Your task to perform on an android device: Check the news Image 0: 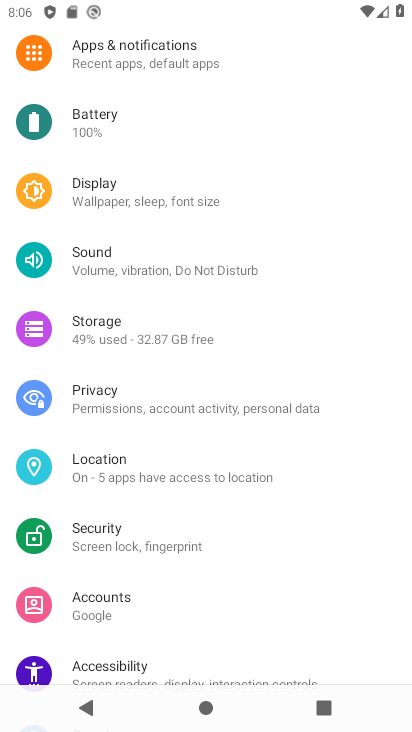
Step 0: press home button
Your task to perform on an android device: Check the news Image 1: 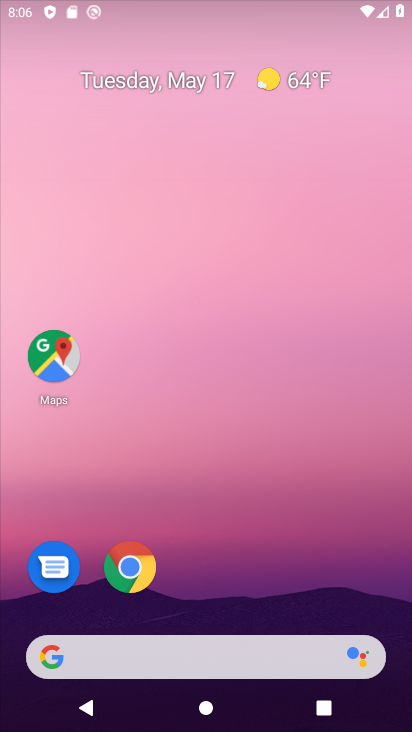
Step 1: drag from (356, 606) to (211, 14)
Your task to perform on an android device: Check the news Image 2: 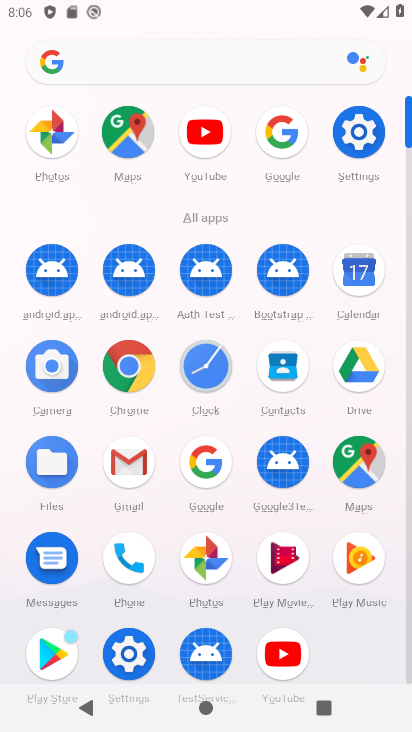
Step 2: click (278, 126)
Your task to perform on an android device: Check the news Image 3: 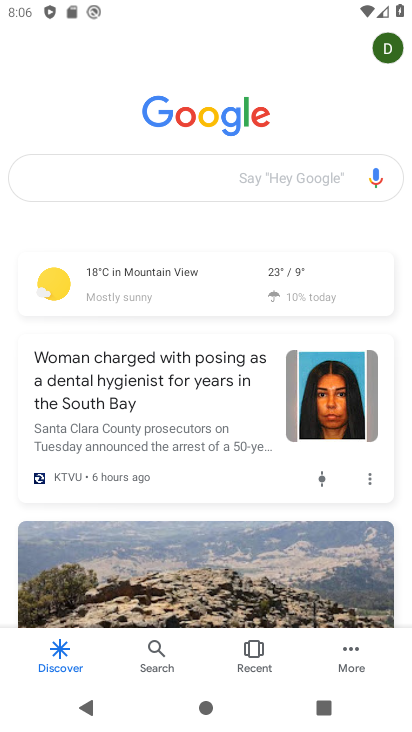
Step 3: click (158, 164)
Your task to perform on an android device: Check the news Image 4: 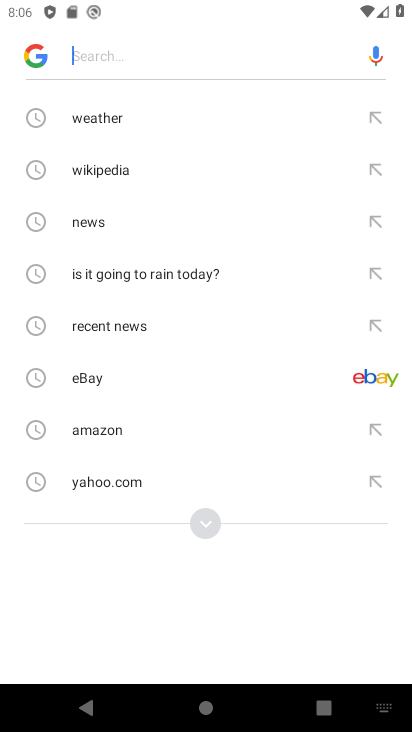
Step 4: click (111, 231)
Your task to perform on an android device: Check the news Image 5: 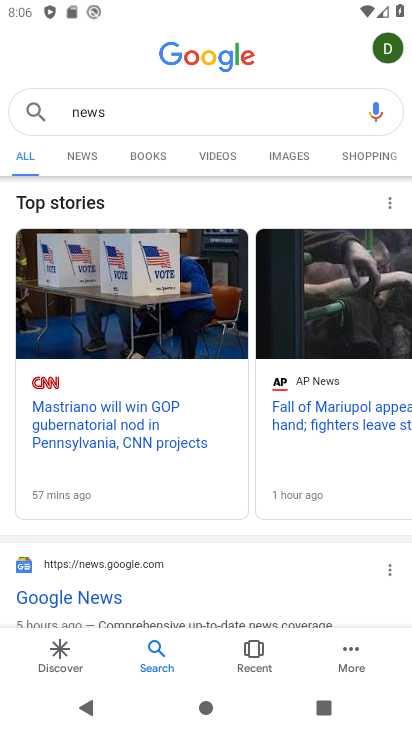
Step 5: task complete